Your task to perform on an android device: set the timer Image 0: 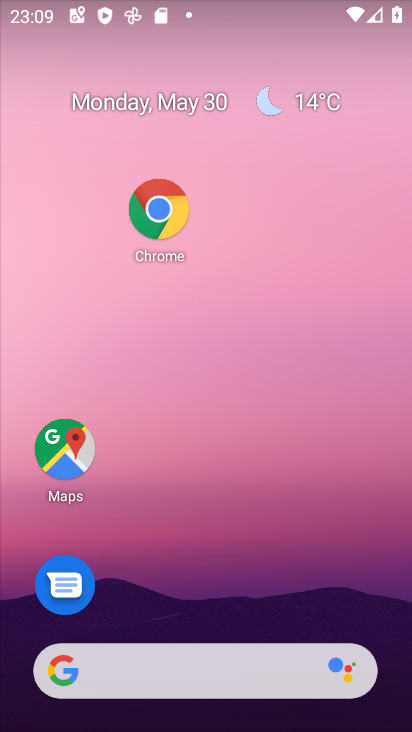
Step 0: drag from (196, 628) to (356, 88)
Your task to perform on an android device: set the timer Image 1: 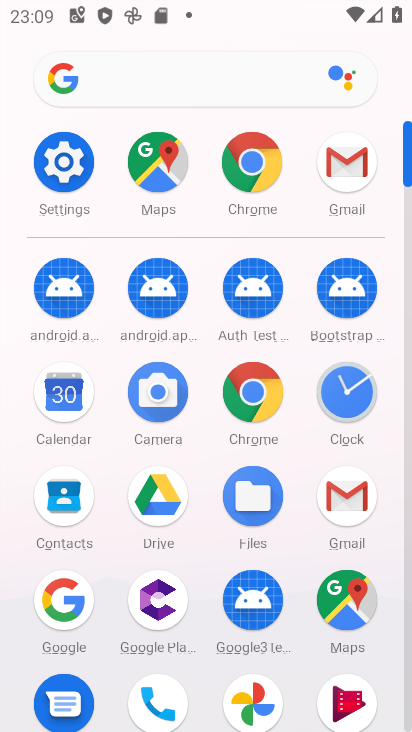
Step 1: click (350, 386)
Your task to perform on an android device: set the timer Image 2: 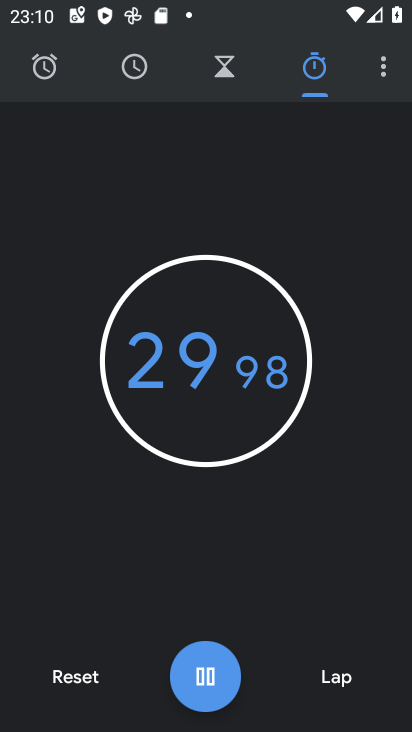
Step 2: click (384, 80)
Your task to perform on an android device: set the timer Image 3: 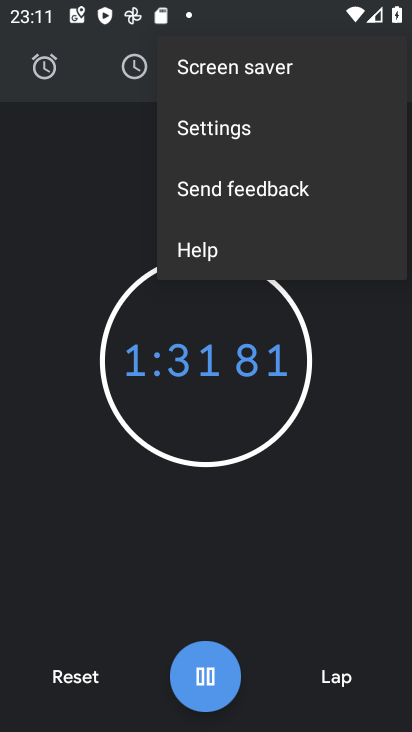
Step 3: task complete